Your task to perform on an android device: turn off picture-in-picture Image 0: 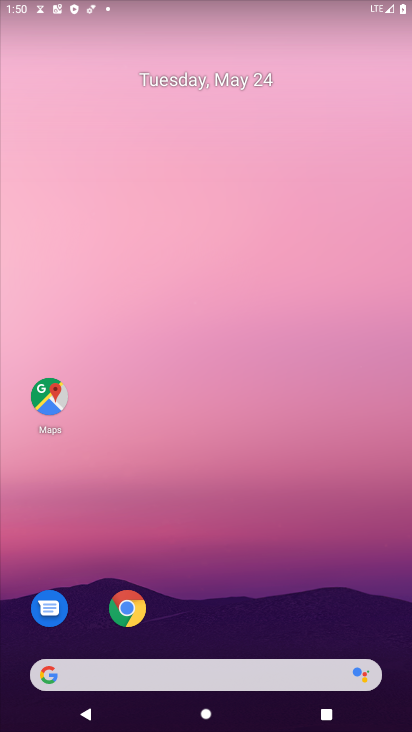
Step 0: click (134, 611)
Your task to perform on an android device: turn off picture-in-picture Image 1: 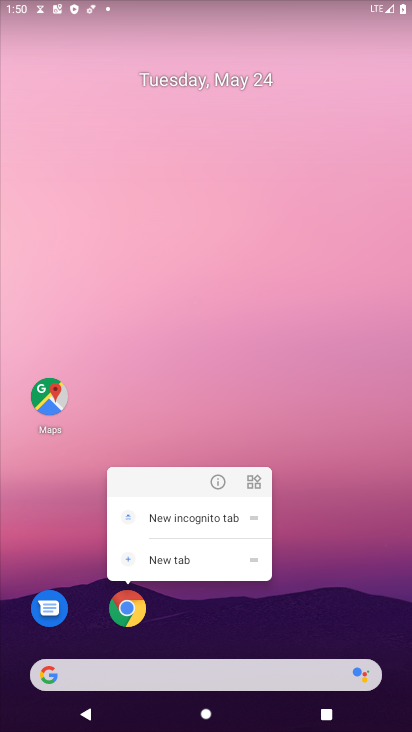
Step 1: click (224, 483)
Your task to perform on an android device: turn off picture-in-picture Image 2: 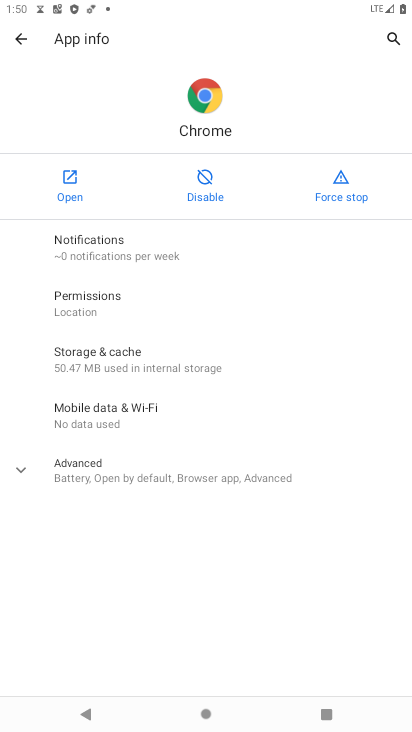
Step 2: click (219, 479)
Your task to perform on an android device: turn off picture-in-picture Image 3: 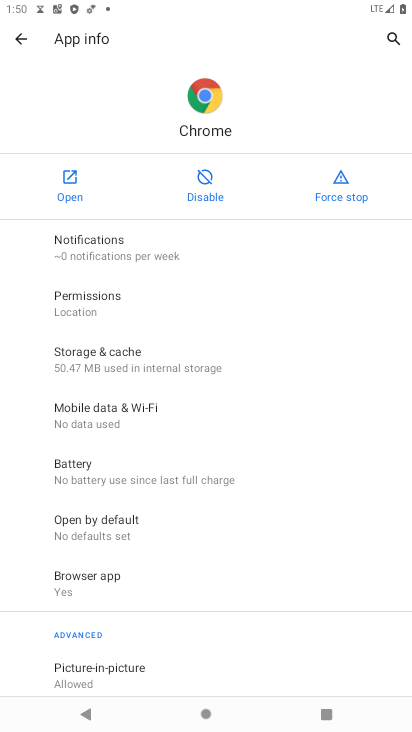
Step 3: click (234, 681)
Your task to perform on an android device: turn off picture-in-picture Image 4: 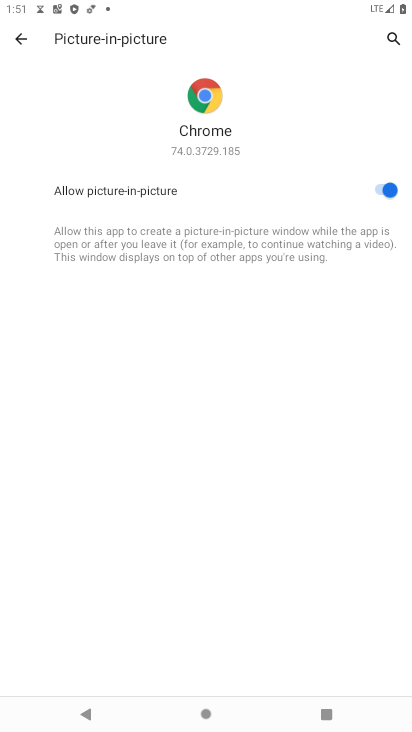
Step 4: click (374, 199)
Your task to perform on an android device: turn off picture-in-picture Image 5: 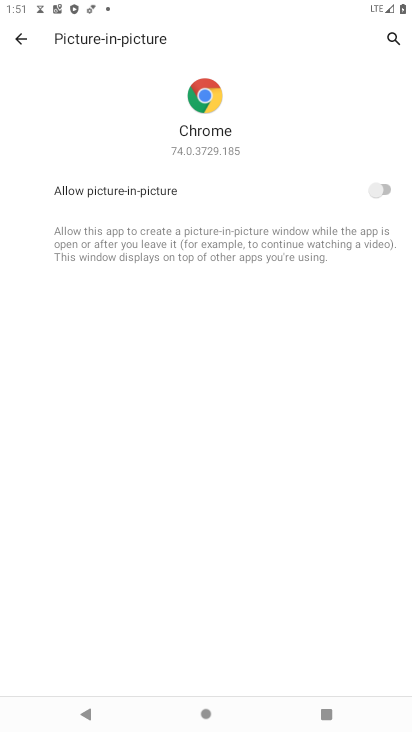
Step 5: task complete